Your task to perform on an android device: delete browsing data in the chrome app Image 0: 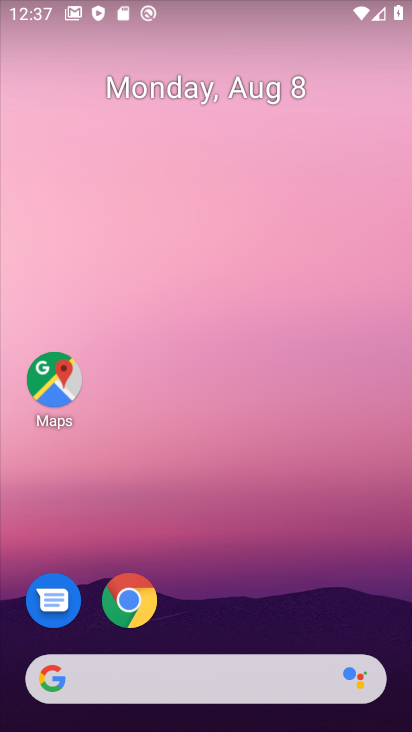
Step 0: click (125, 586)
Your task to perform on an android device: delete browsing data in the chrome app Image 1: 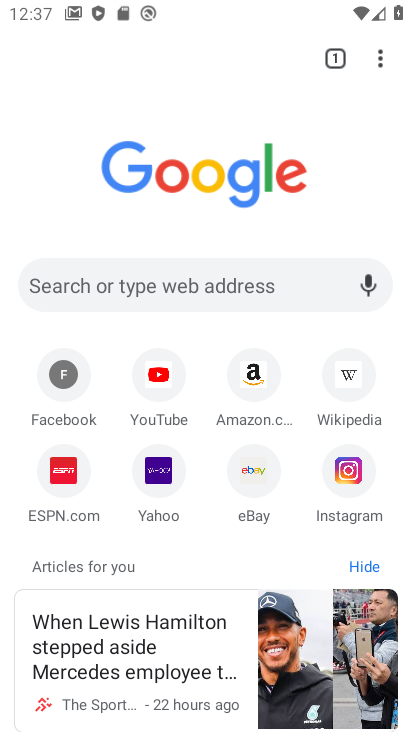
Step 1: drag from (377, 65) to (171, 560)
Your task to perform on an android device: delete browsing data in the chrome app Image 2: 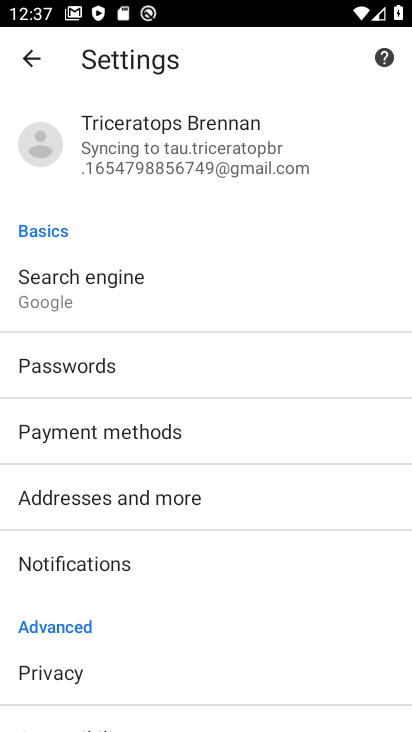
Step 2: click (57, 669)
Your task to perform on an android device: delete browsing data in the chrome app Image 3: 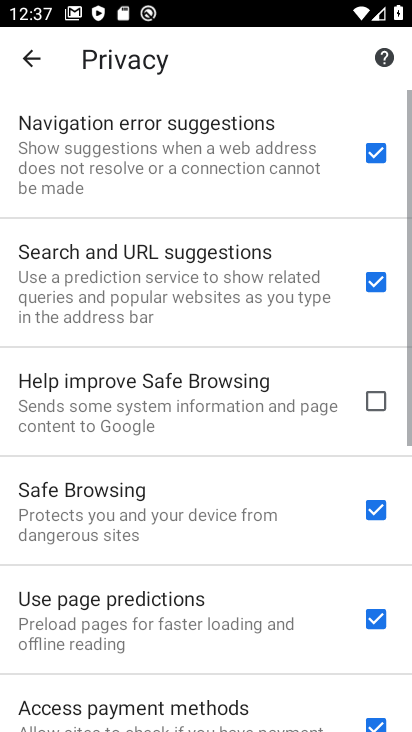
Step 3: drag from (175, 558) to (158, 7)
Your task to perform on an android device: delete browsing data in the chrome app Image 4: 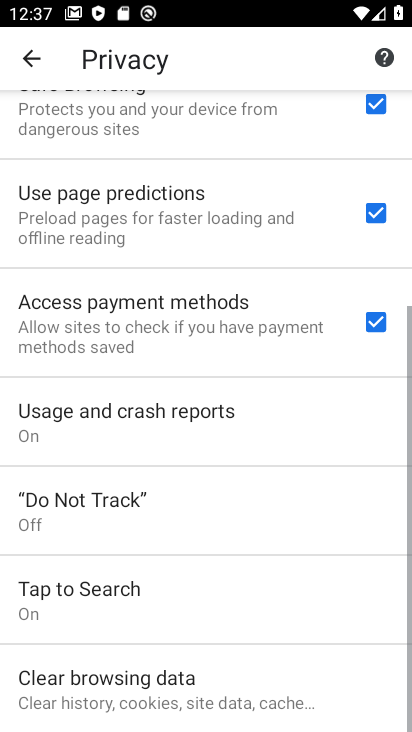
Step 4: click (271, 675)
Your task to perform on an android device: delete browsing data in the chrome app Image 5: 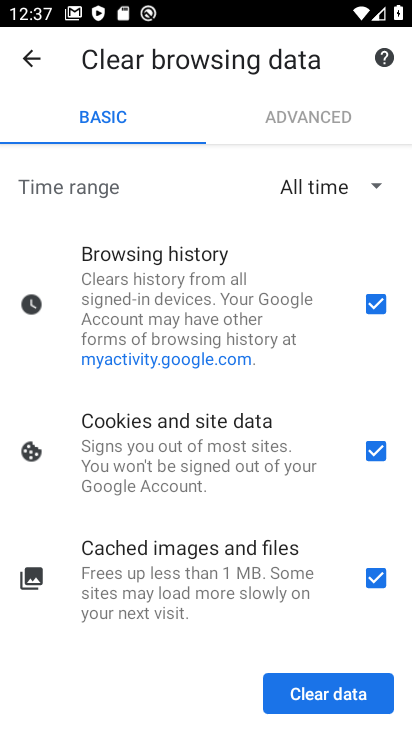
Step 5: click (323, 685)
Your task to perform on an android device: delete browsing data in the chrome app Image 6: 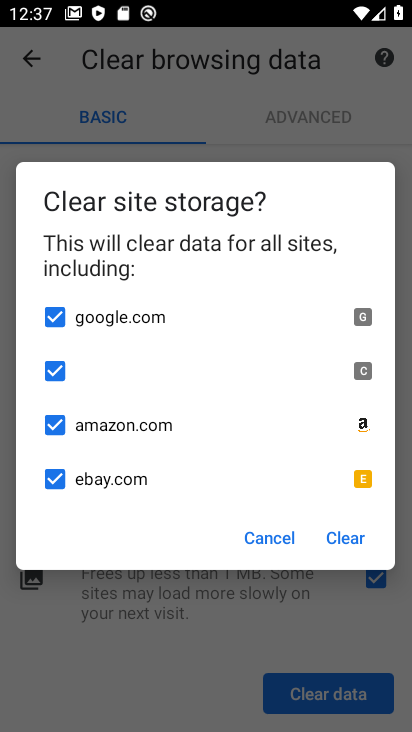
Step 6: click (341, 555)
Your task to perform on an android device: delete browsing data in the chrome app Image 7: 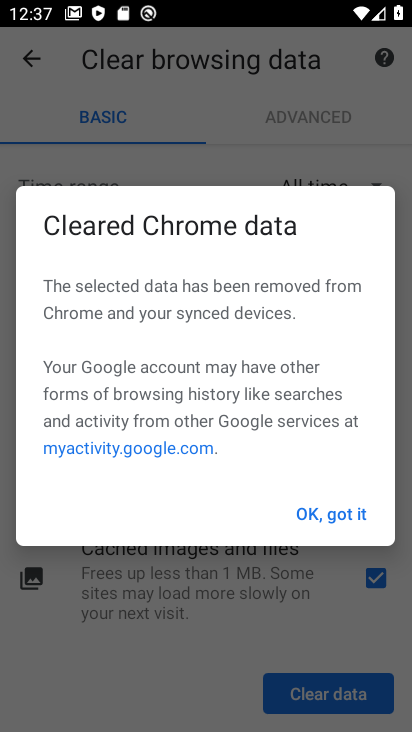
Step 7: click (331, 514)
Your task to perform on an android device: delete browsing data in the chrome app Image 8: 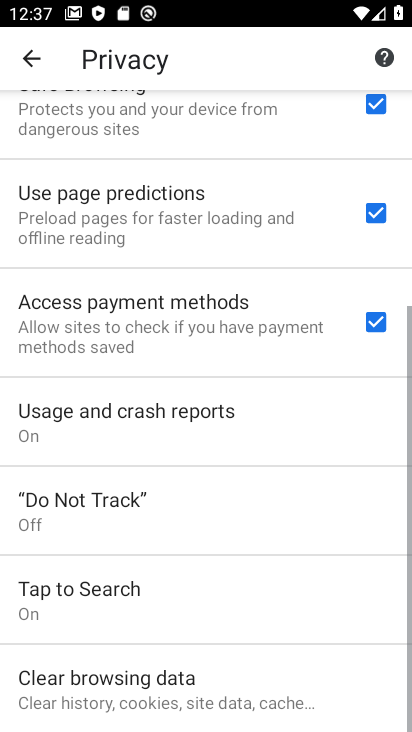
Step 8: task complete